Your task to perform on an android device: Open Chrome and go to settings Image 0: 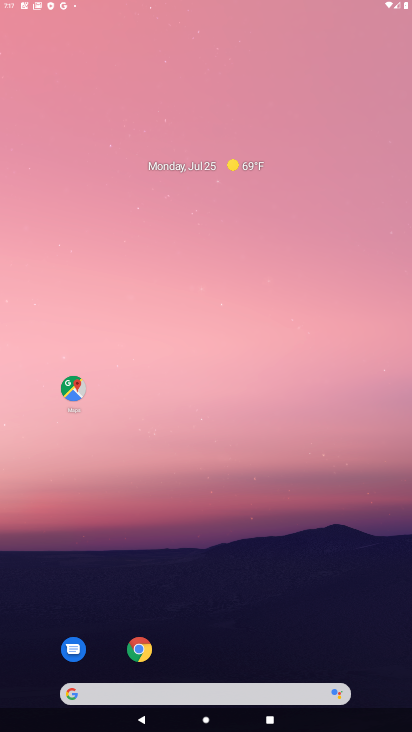
Step 0: click (219, 71)
Your task to perform on an android device: Open Chrome and go to settings Image 1: 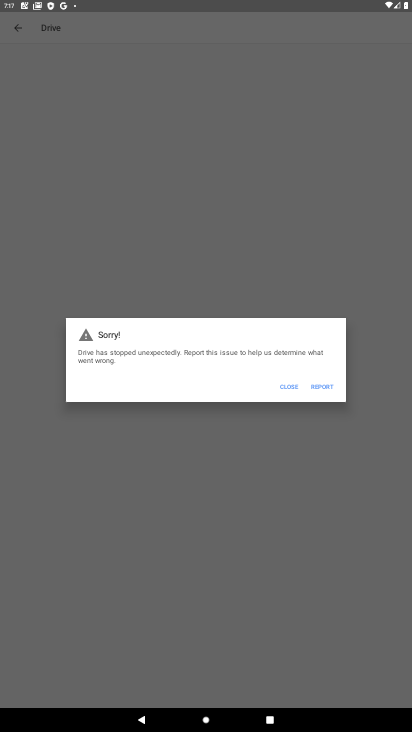
Step 1: press home button
Your task to perform on an android device: Open Chrome and go to settings Image 2: 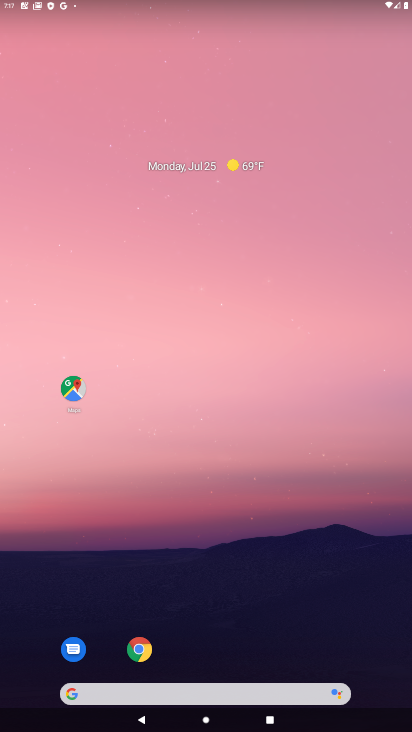
Step 2: drag from (274, 674) to (204, 0)
Your task to perform on an android device: Open Chrome and go to settings Image 3: 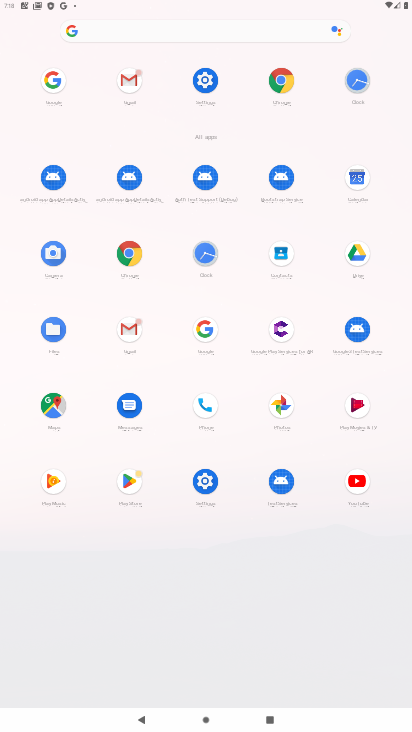
Step 3: click (268, 75)
Your task to perform on an android device: Open Chrome and go to settings Image 4: 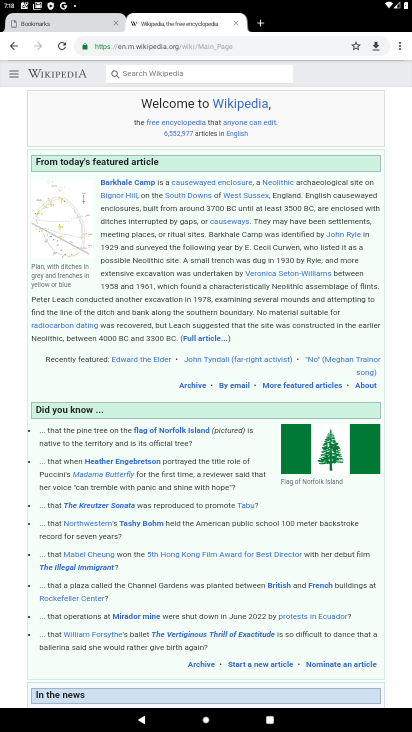
Step 4: task complete